Your task to perform on an android device: What is the news today? Image 0: 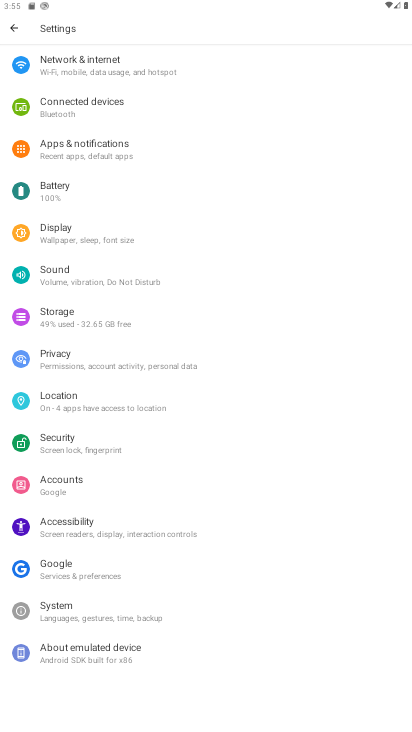
Step 0: press home button
Your task to perform on an android device: What is the news today? Image 1: 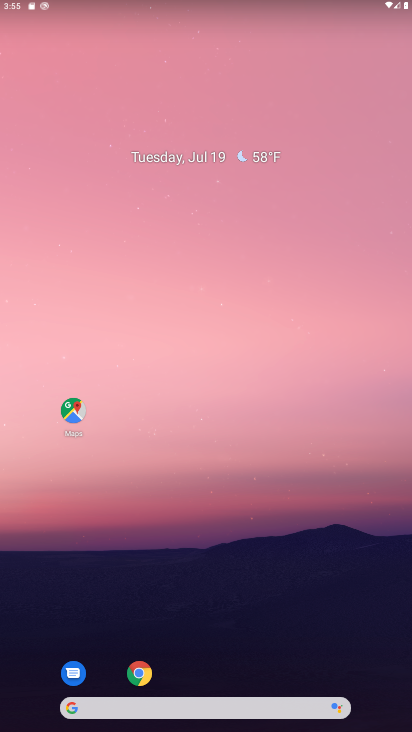
Step 1: drag from (212, 716) to (201, 15)
Your task to perform on an android device: What is the news today? Image 2: 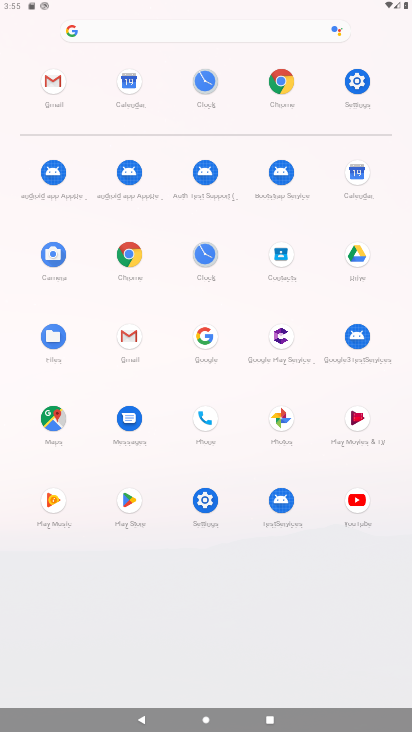
Step 2: click (137, 253)
Your task to perform on an android device: What is the news today? Image 3: 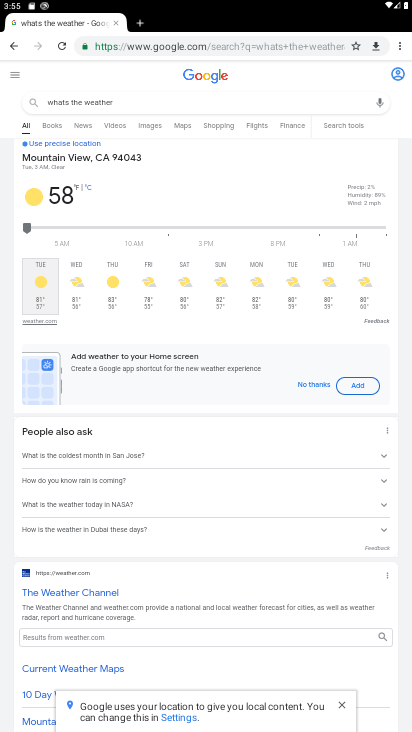
Step 3: click (214, 49)
Your task to perform on an android device: What is the news today? Image 4: 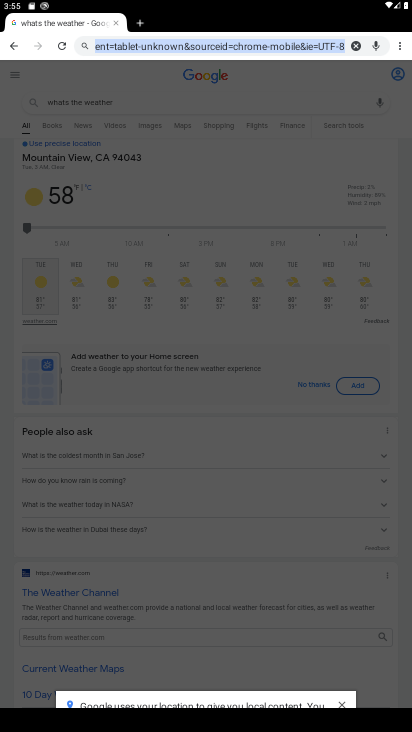
Step 4: type "news today"
Your task to perform on an android device: What is the news today? Image 5: 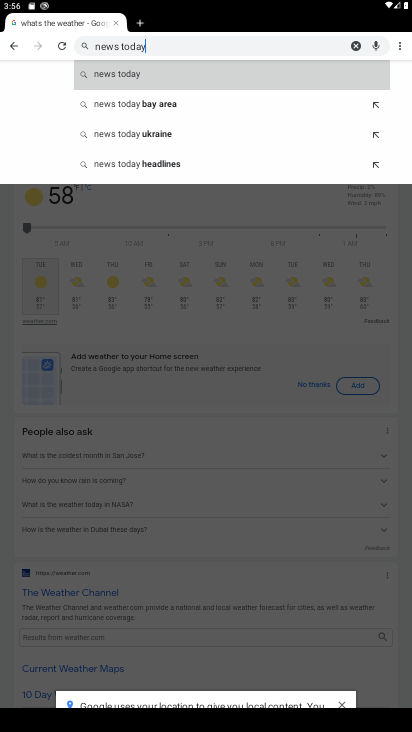
Step 5: click (137, 69)
Your task to perform on an android device: What is the news today? Image 6: 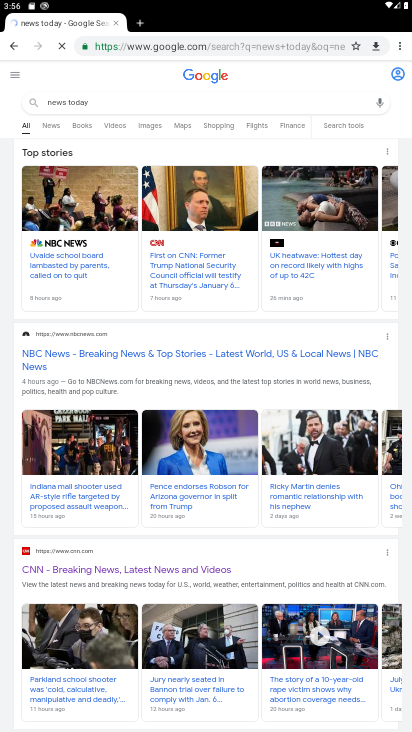
Step 6: task complete